Your task to perform on an android device: turn off notifications in google photos Image 0: 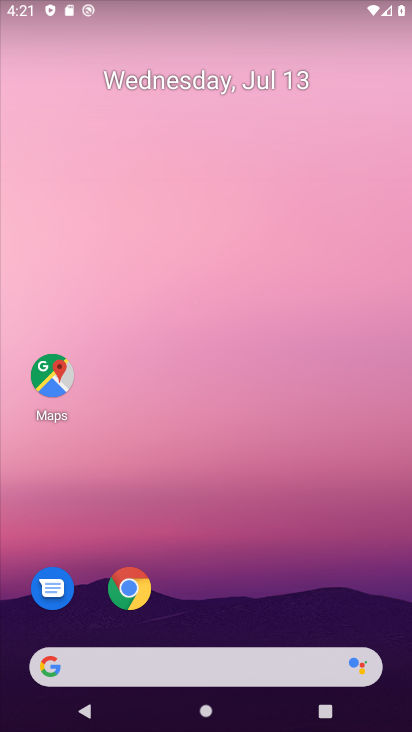
Step 0: drag from (190, 446) to (386, 107)
Your task to perform on an android device: turn off notifications in google photos Image 1: 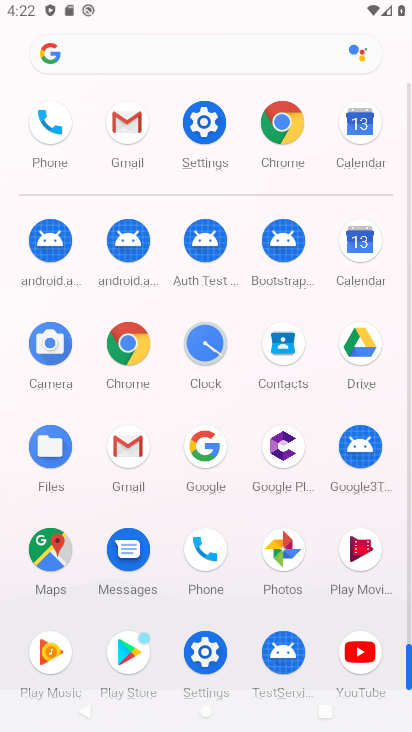
Step 1: click (277, 548)
Your task to perform on an android device: turn off notifications in google photos Image 2: 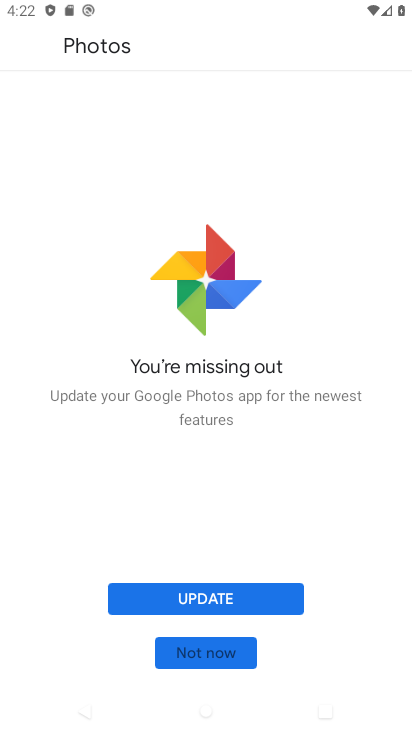
Step 2: click (203, 649)
Your task to perform on an android device: turn off notifications in google photos Image 3: 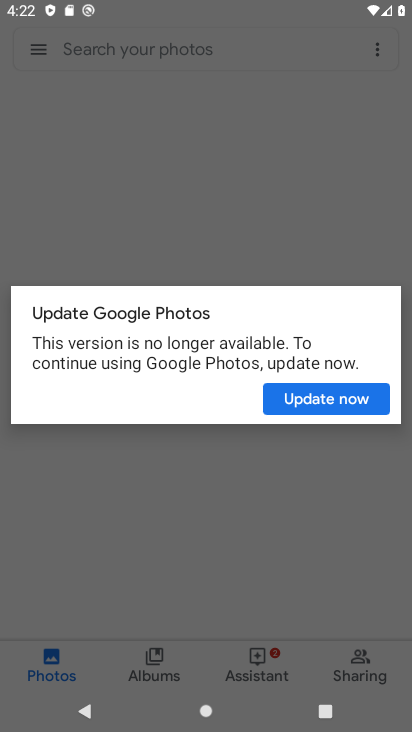
Step 3: click (361, 398)
Your task to perform on an android device: turn off notifications in google photos Image 4: 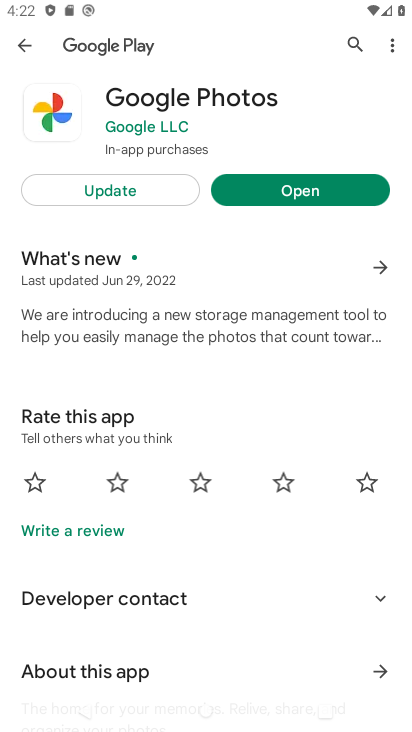
Step 4: click (264, 183)
Your task to perform on an android device: turn off notifications in google photos Image 5: 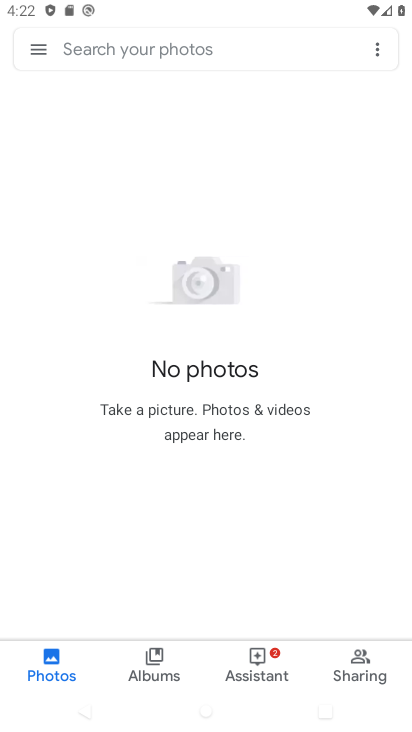
Step 5: click (46, 49)
Your task to perform on an android device: turn off notifications in google photos Image 6: 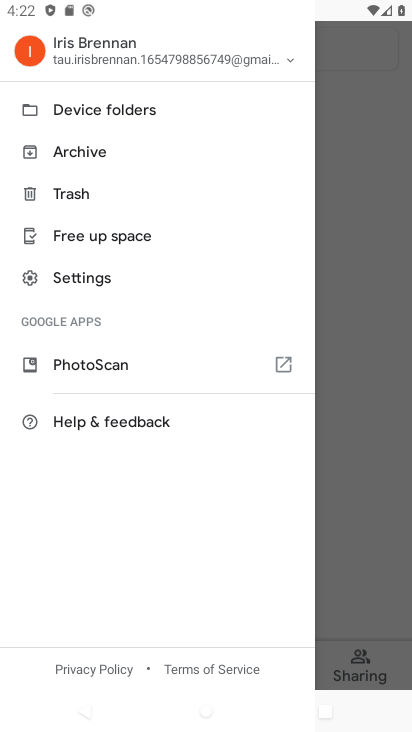
Step 6: click (87, 290)
Your task to perform on an android device: turn off notifications in google photos Image 7: 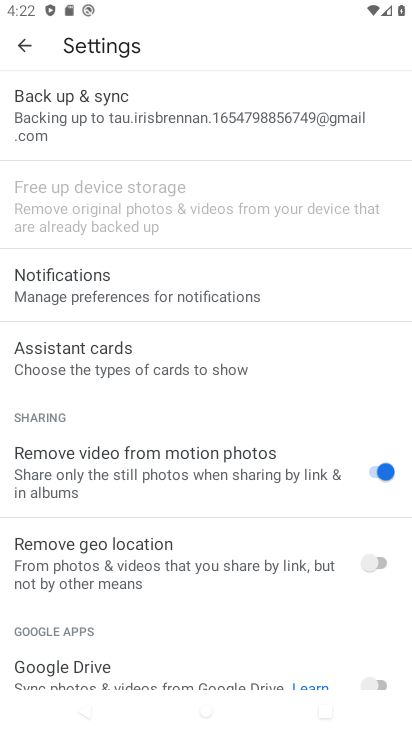
Step 7: click (87, 290)
Your task to perform on an android device: turn off notifications in google photos Image 8: 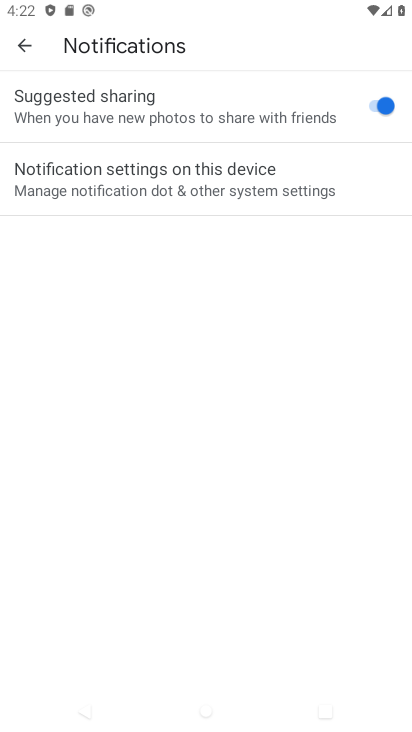
Step 8: click (158, 158)
Your task to perform on an android device: turn off notifications in google photos Image 9: 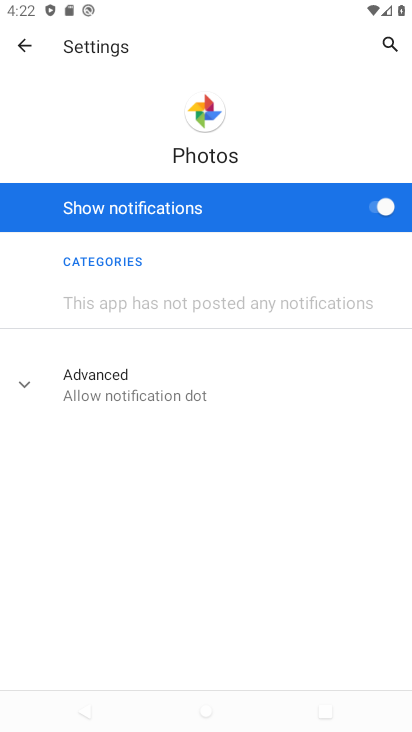
Step 9: click (382, 203)
Your task to perform on an android device: turn off notifications in google photos Image 10: 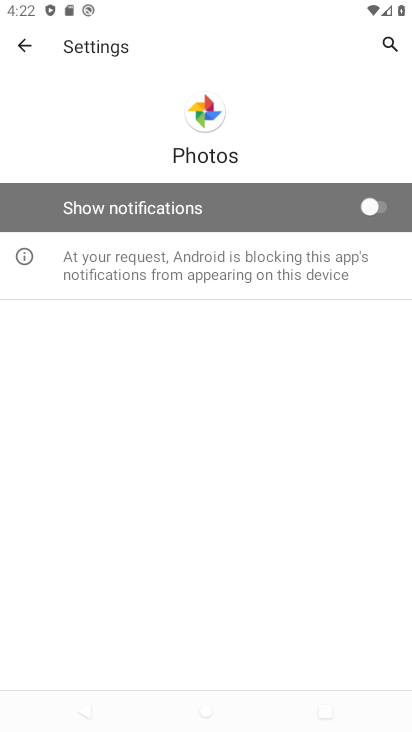
Step 10: task complete